Your task to perform on an android device: stop showing notifications on the lock screen Image 0: 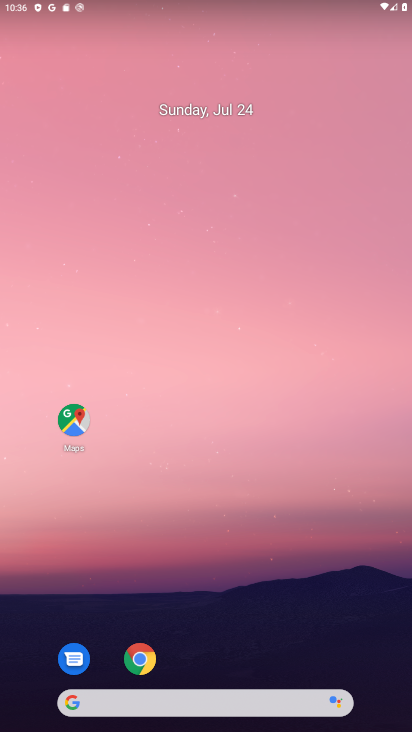
Step 0: click (284, 5)
Your task to perform on an android device: stop showing notifications on the lock screen Image 1: 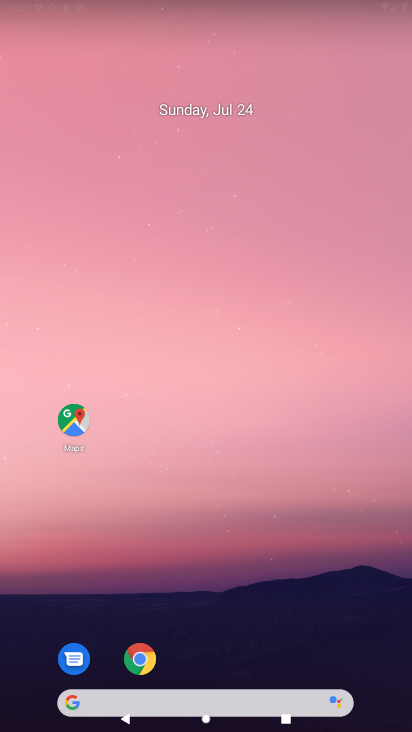
Step 1: drag from (211, 620) to (203, 379)
Your task to perform on an android device: stop showing notifications on the lock screen Image 2: 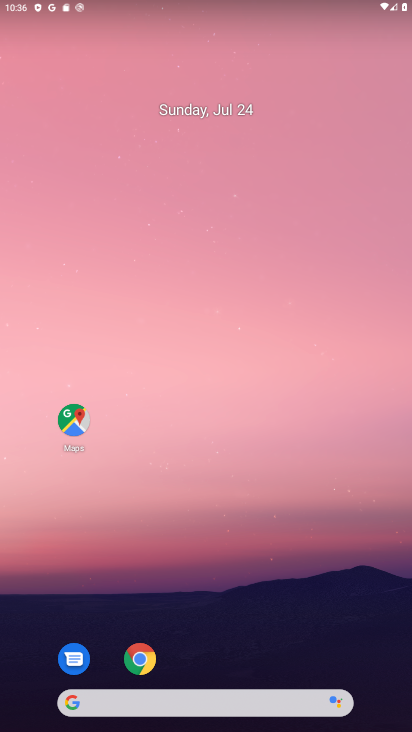
Step 2: drag from (212, 690) to (208, 223)
Your task to perform on an android device: stop showing notifications on the lock screen Image 3: 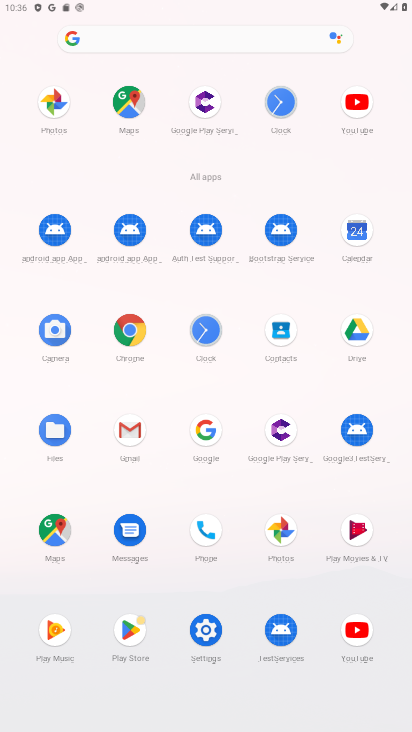
Step 3: click (217, 627)
Your task to perform on an android device: stop showing notifications on the lock screen Image 4: 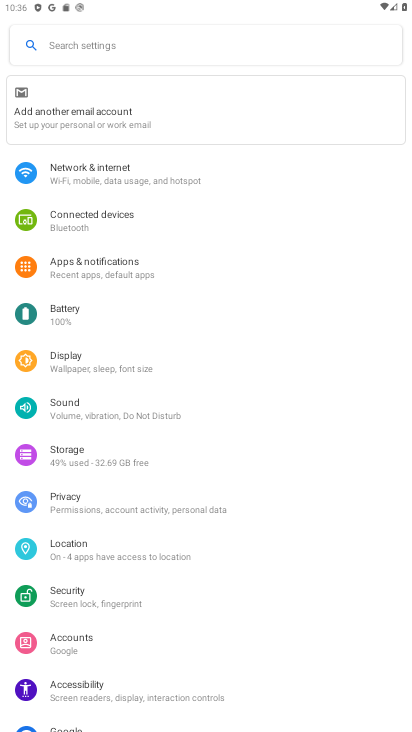
Step 4: click (117, 266)
Your task to perform on an android device: stop showing notifications on the lock screen Image 5: 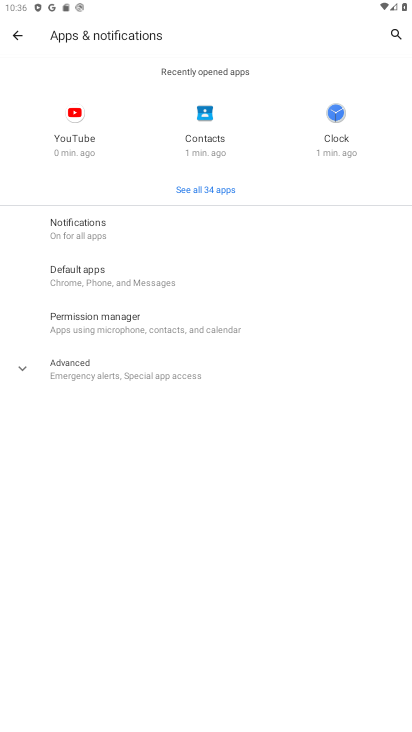
Step 5: click (91, 221)
Your task to perform on an android device: stop showing notifications on the lock screen Image 6: 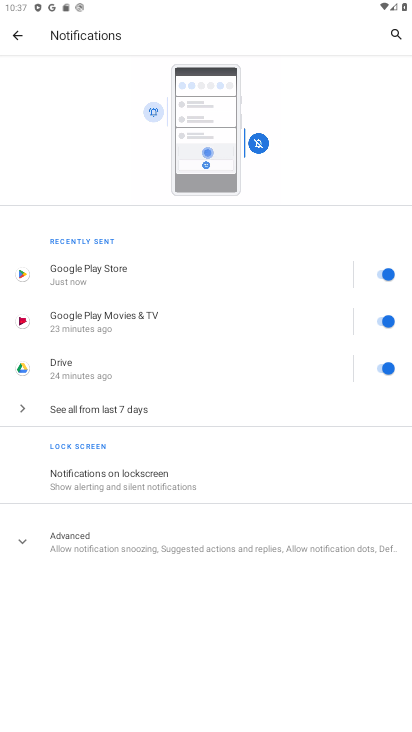
Step 6: click (174, 470)
Your task to perform on an android device: stop showing notifications on the lock screen Image 7: 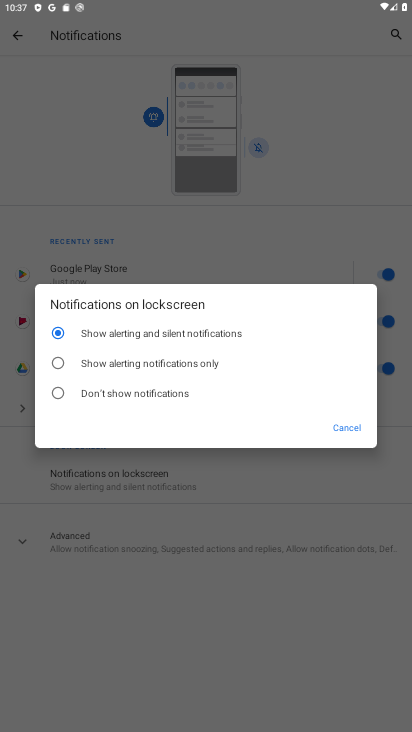
Step 7: click (92, 390)
Your task to perform on an android device: stop showing notifications on the lock screen Image 8: 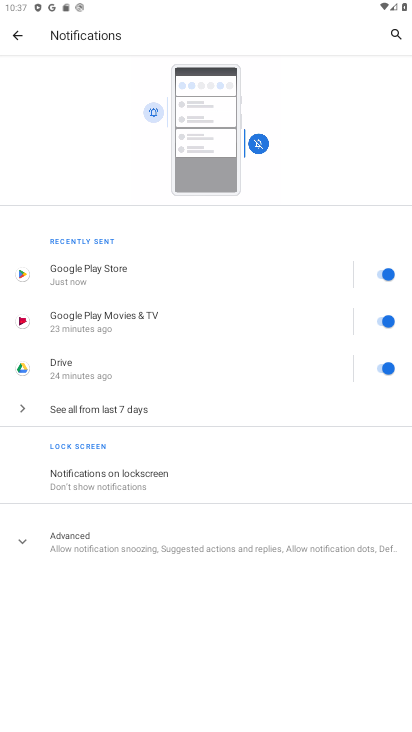
Step 8: task complete